Your task to perform on an android device: install app "Walmart Shopping & Grocery" Image 0: 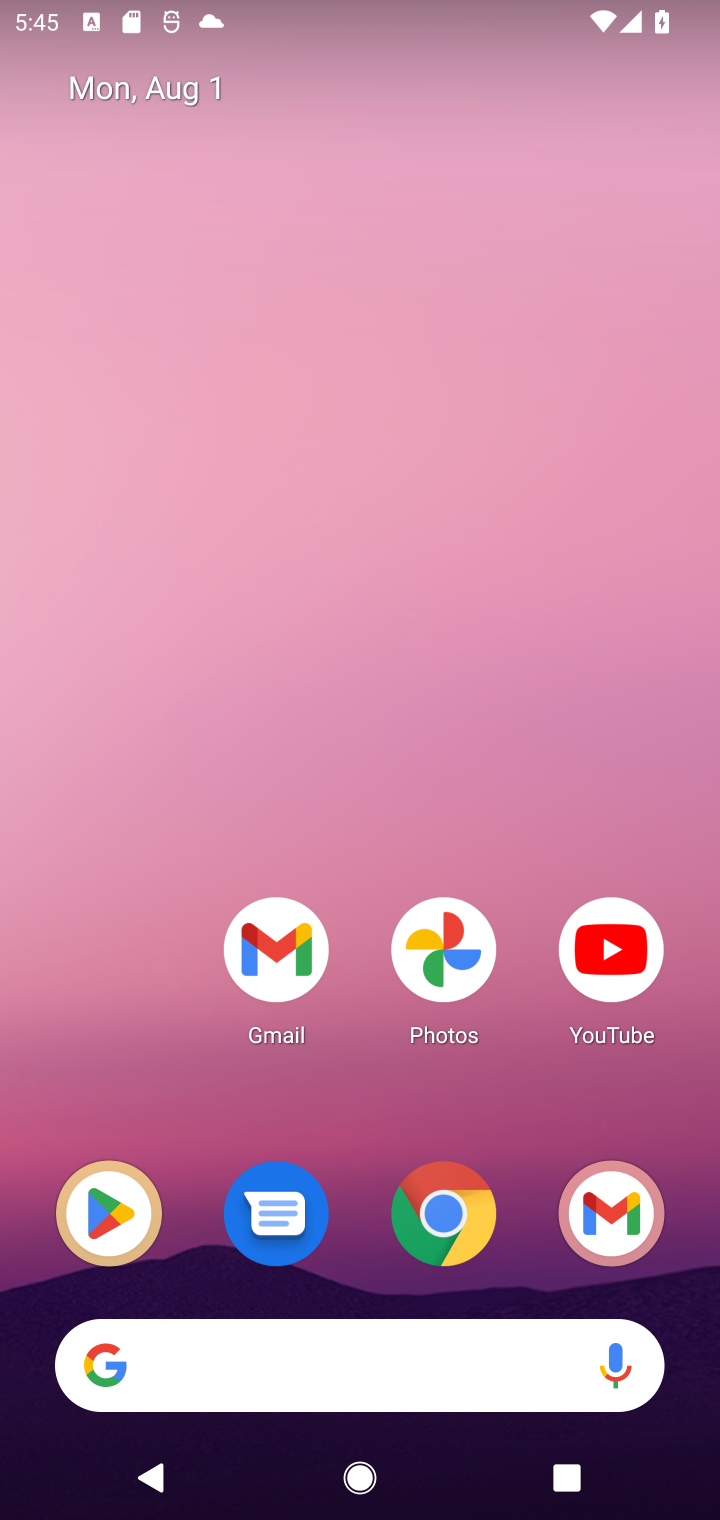
Step 0: drag from (535, 1100) to (543, 248)
Your task to perform on an android device: install app "Walmart Shopping & Grocery" Image 1: 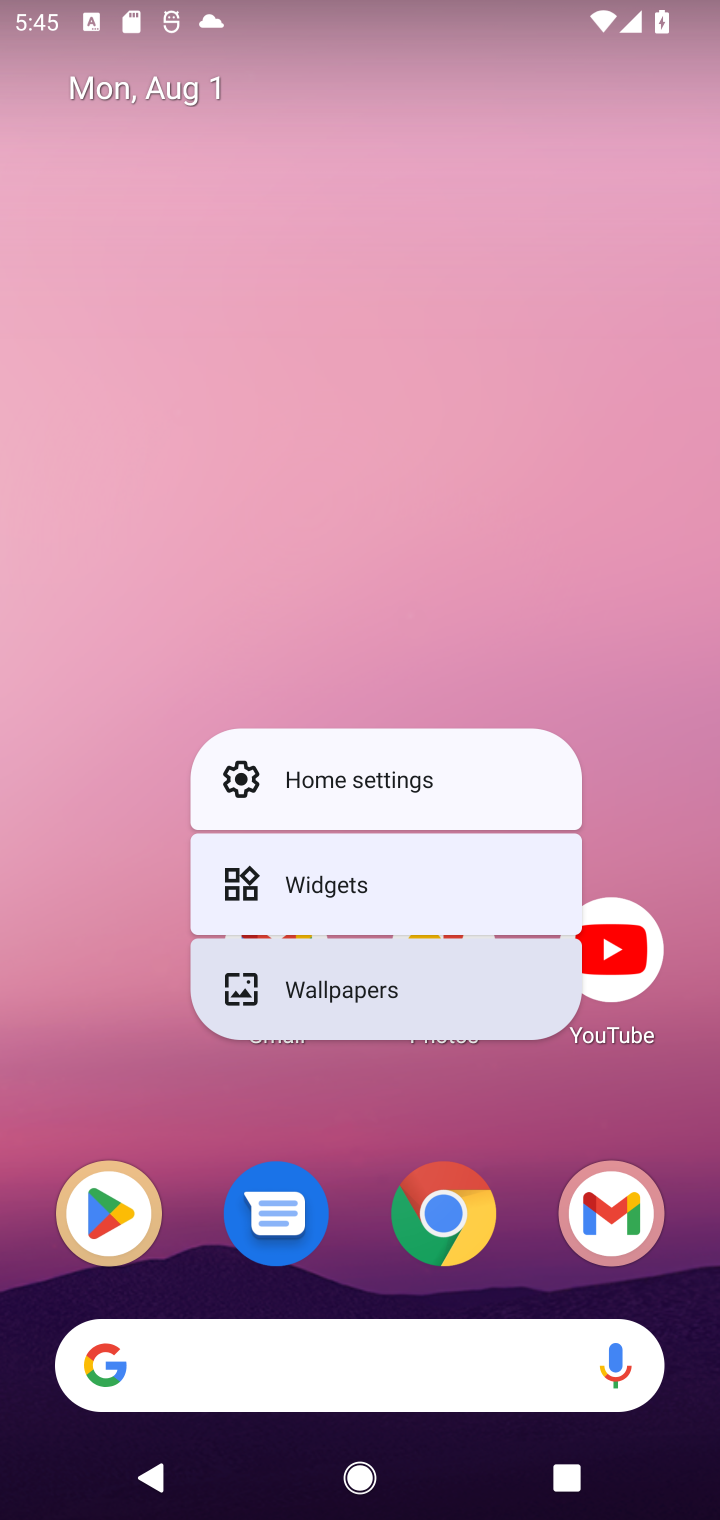
Step 1: click (593, 457)
Your task to perform on an android device: install app "Walmart Shopping & Grocery" Image 2: 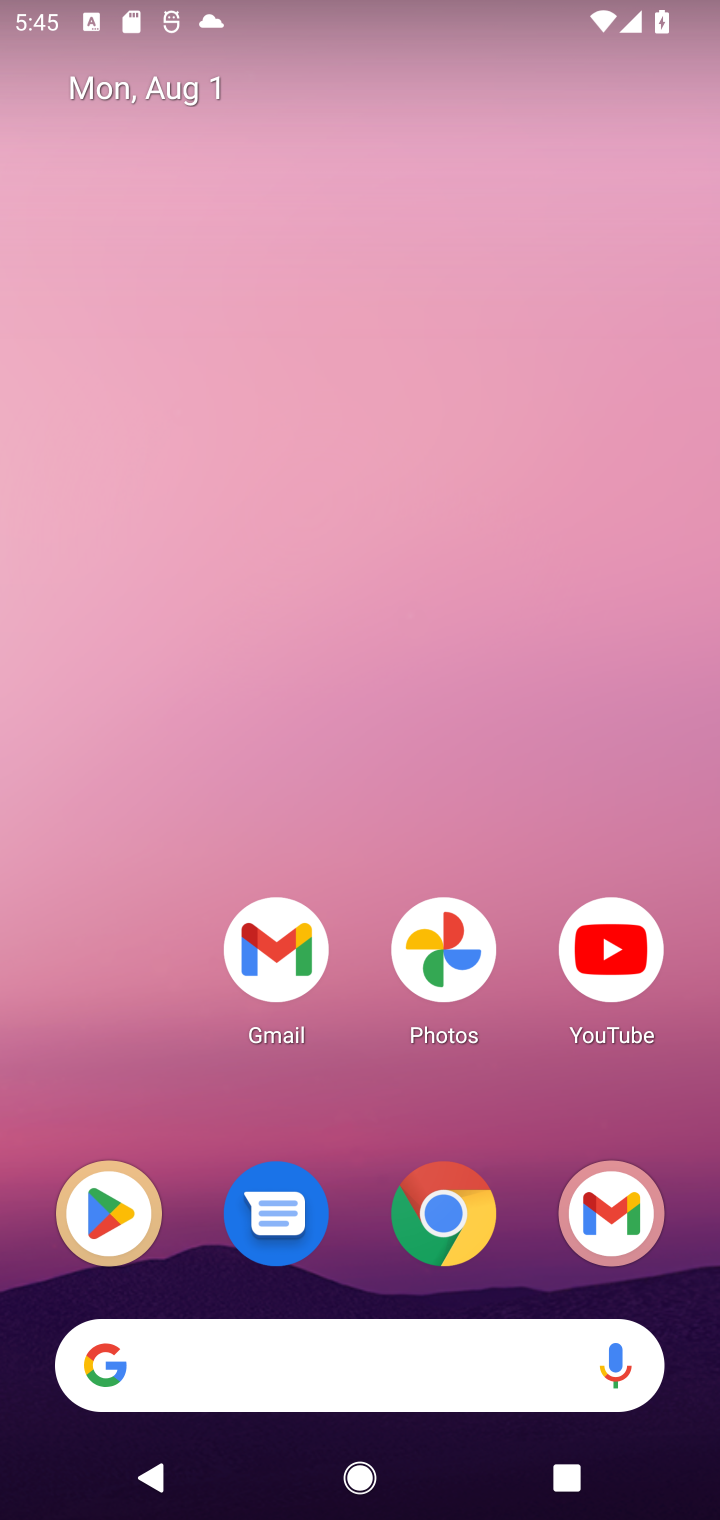
Step 2: drag from (524, 1100) to (522, 65)
Your task to perform on an android device: install app "Walmart Shopping & Grocery" Image 3: 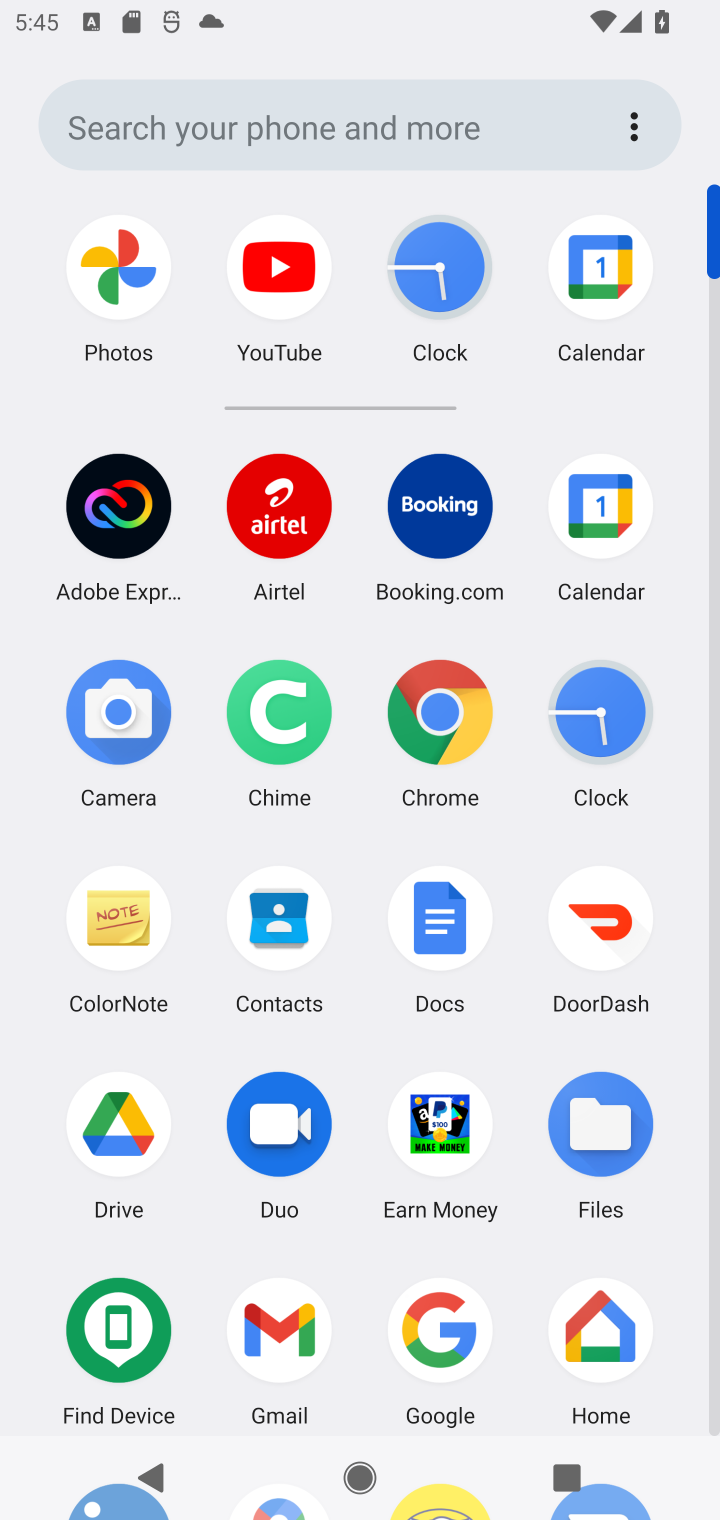
Step 3: drag from (504, 1258) to (524, 384)
Your task to perform on an android device: install app "Walmart Shopping & Grocery" Image 4: 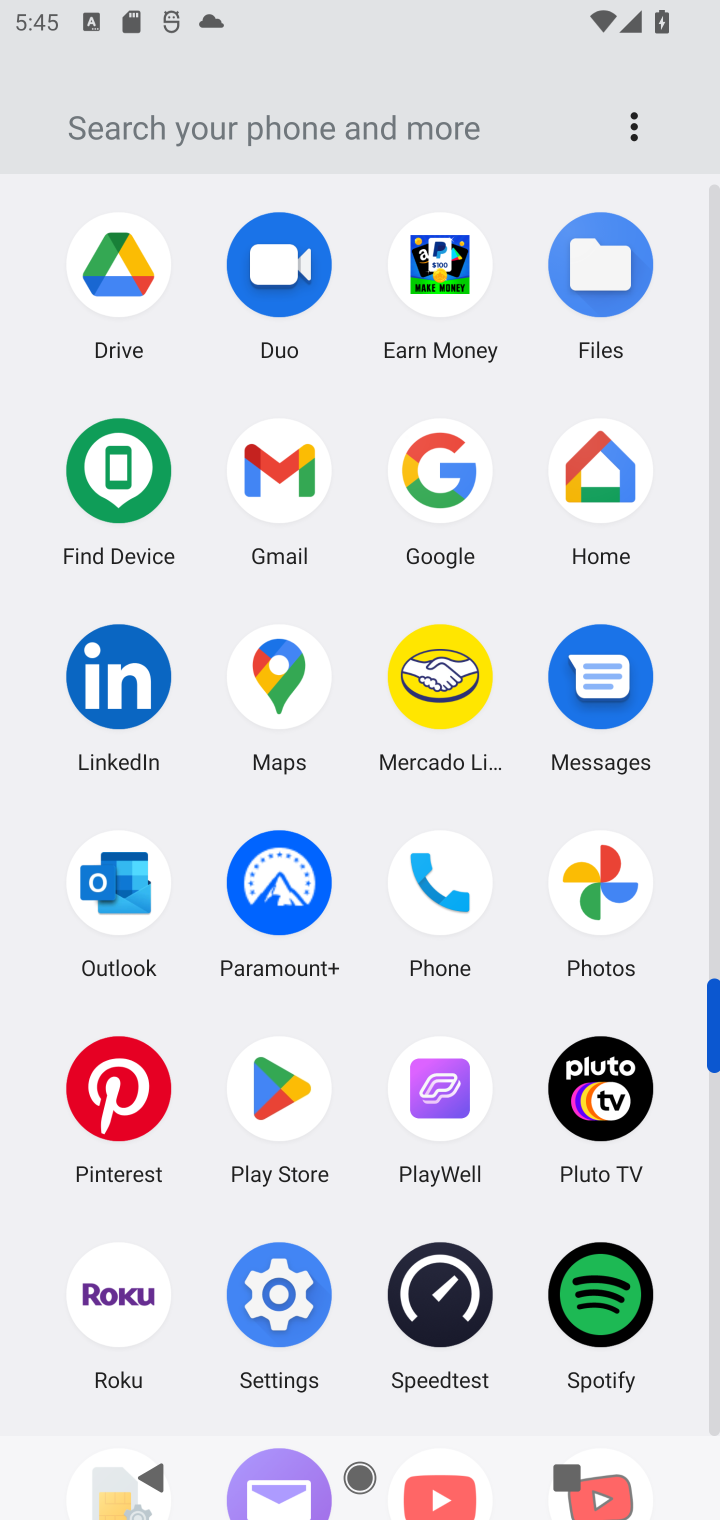
Step 4: click (271, 1097)
Your task to perform on an android device: install app "Walmart Shopping & Grocery" Image 5: 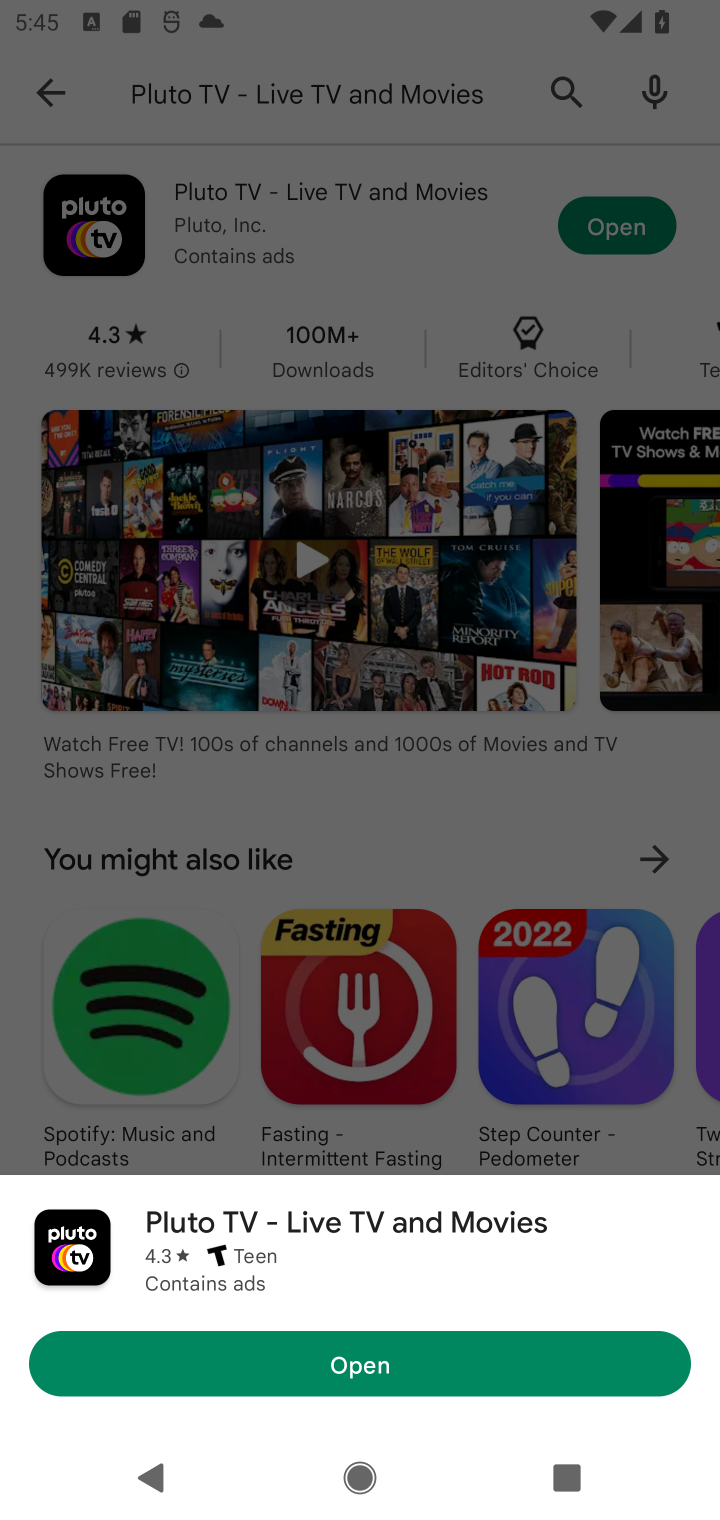
Step 5: click (388, 65)
Your task to perform on an android device: install app "Walmart Shopping & Grocery" Image 6: 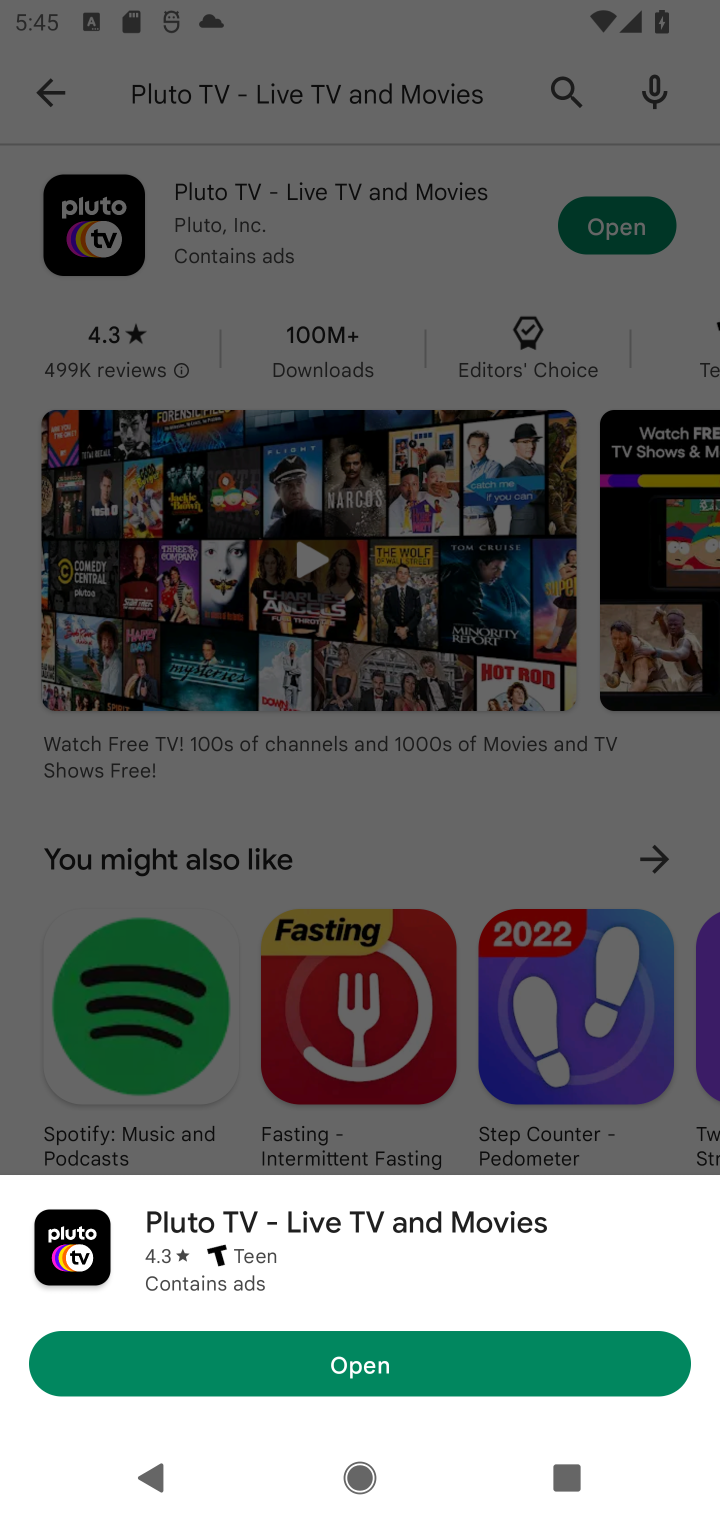
Step 6: click (392, 84)
Your task to perform on an android device: install app "Walmart Shopping & Grocery" Image 7: 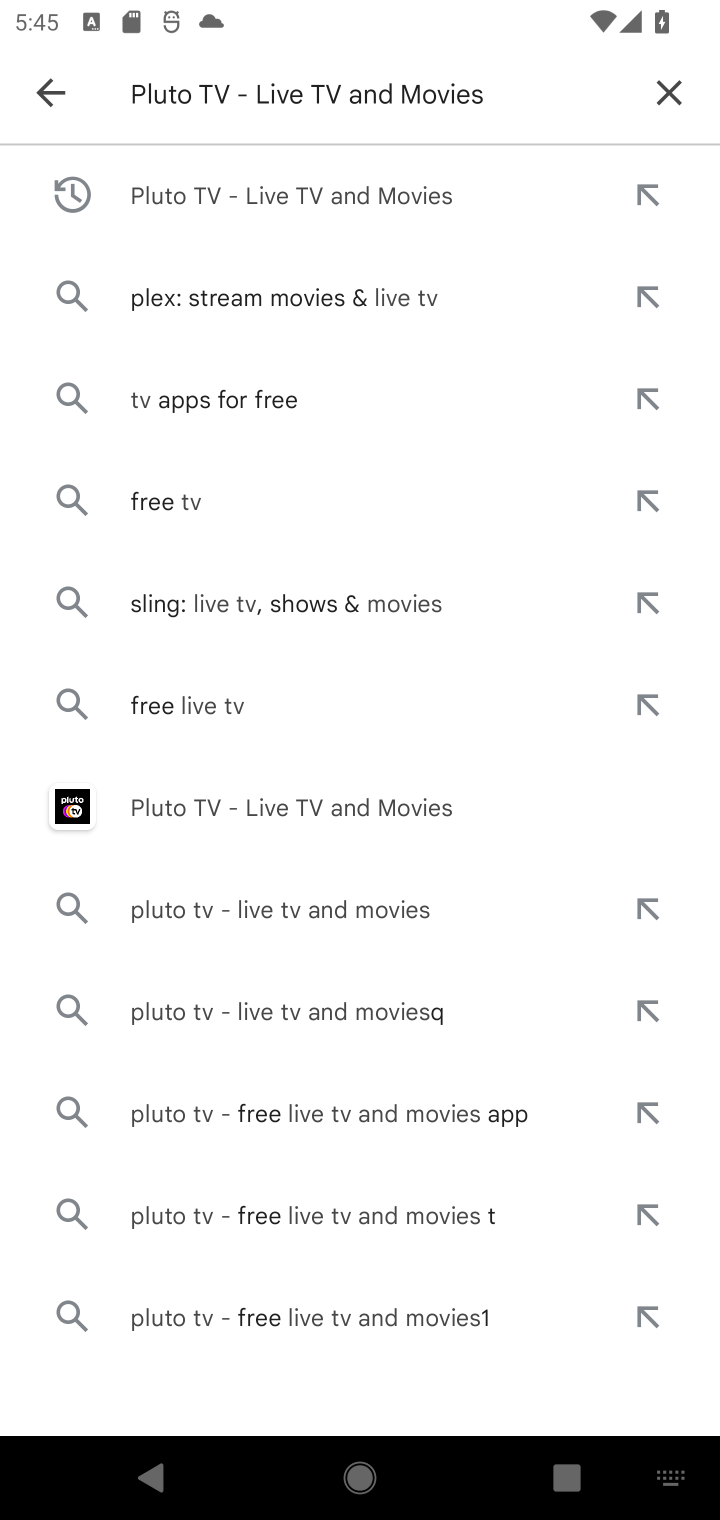
Step 7: click (685, 82)
Your task to perform on an android device: install app "Walmart Shopping & Grocery" Image 8: 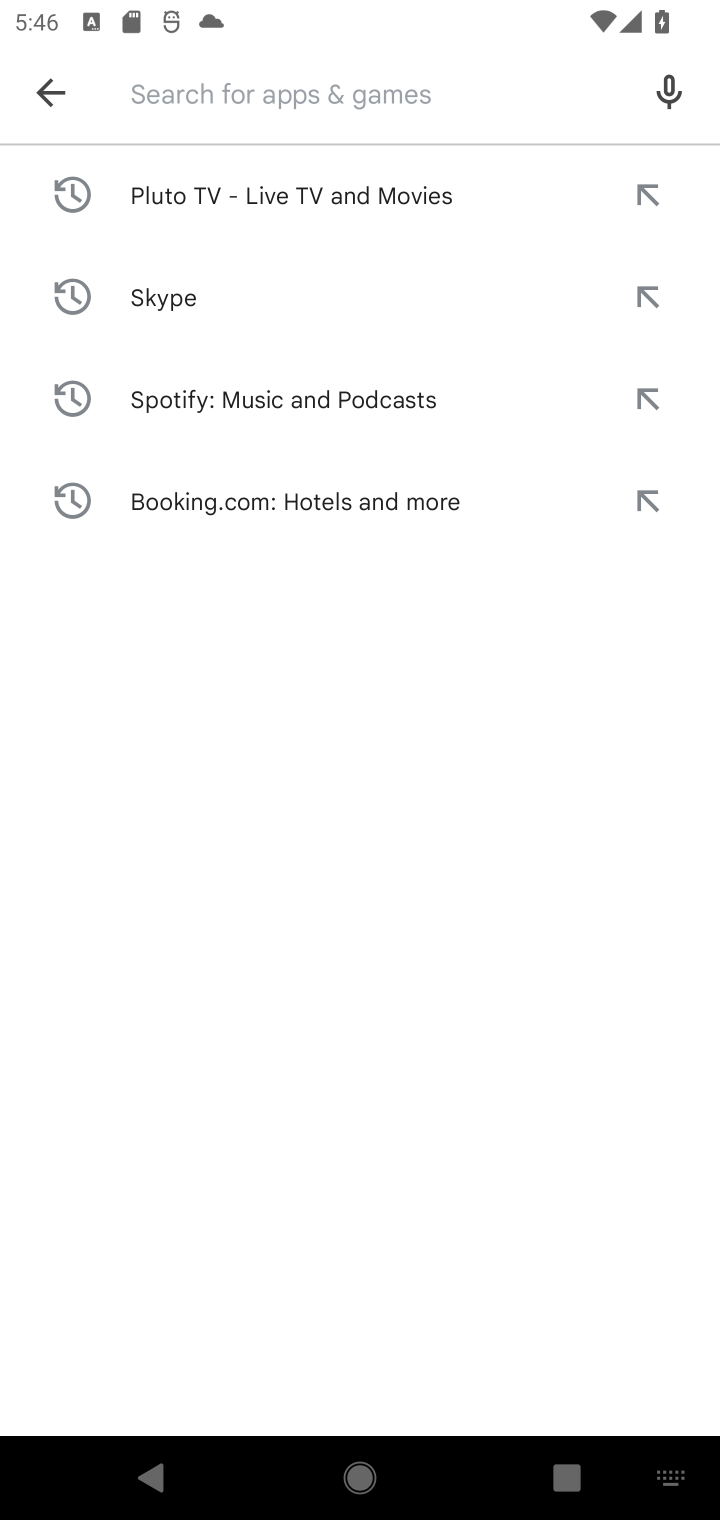
Step 8: type "Walmart Shopping & Grocery"
Your task to perform on an android device: install app "Walmart Shopping & Grocery" Image 9: 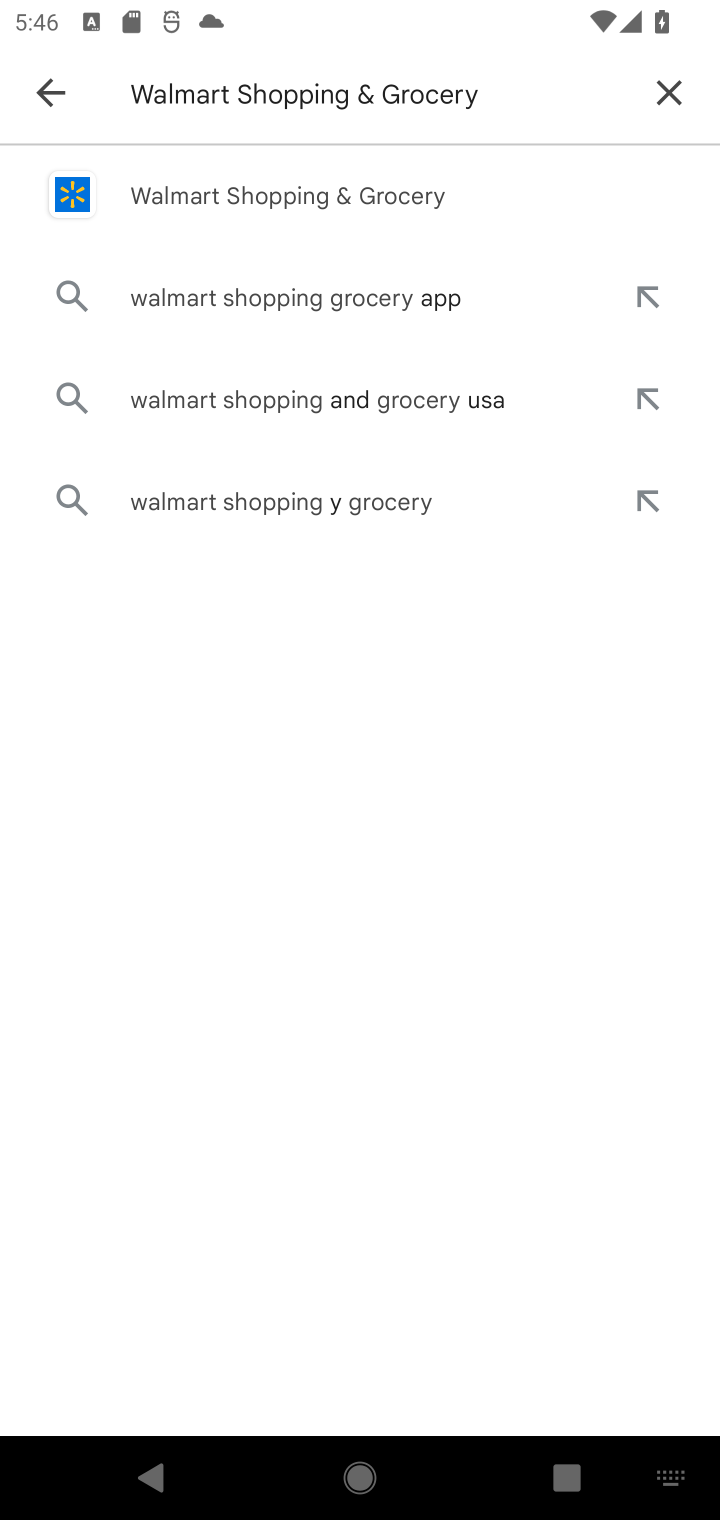
Step 9: press enter
Your task to perform on an android device: install app "Walmart Shopping & Grocery" Image 10: 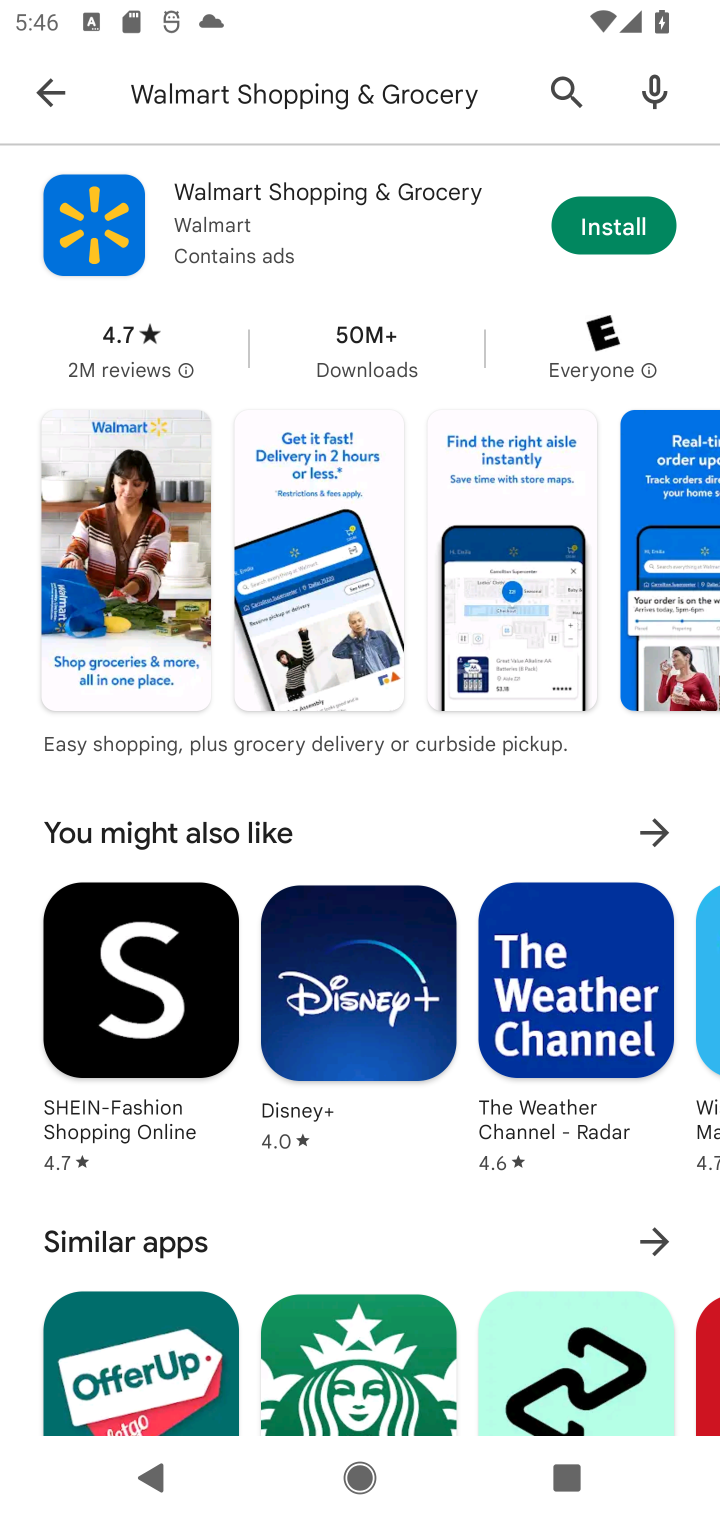
Step 10: click (593, 229)
Your task to perform on an android device: install app "Walmart Shopping & Grocery" Image 11: 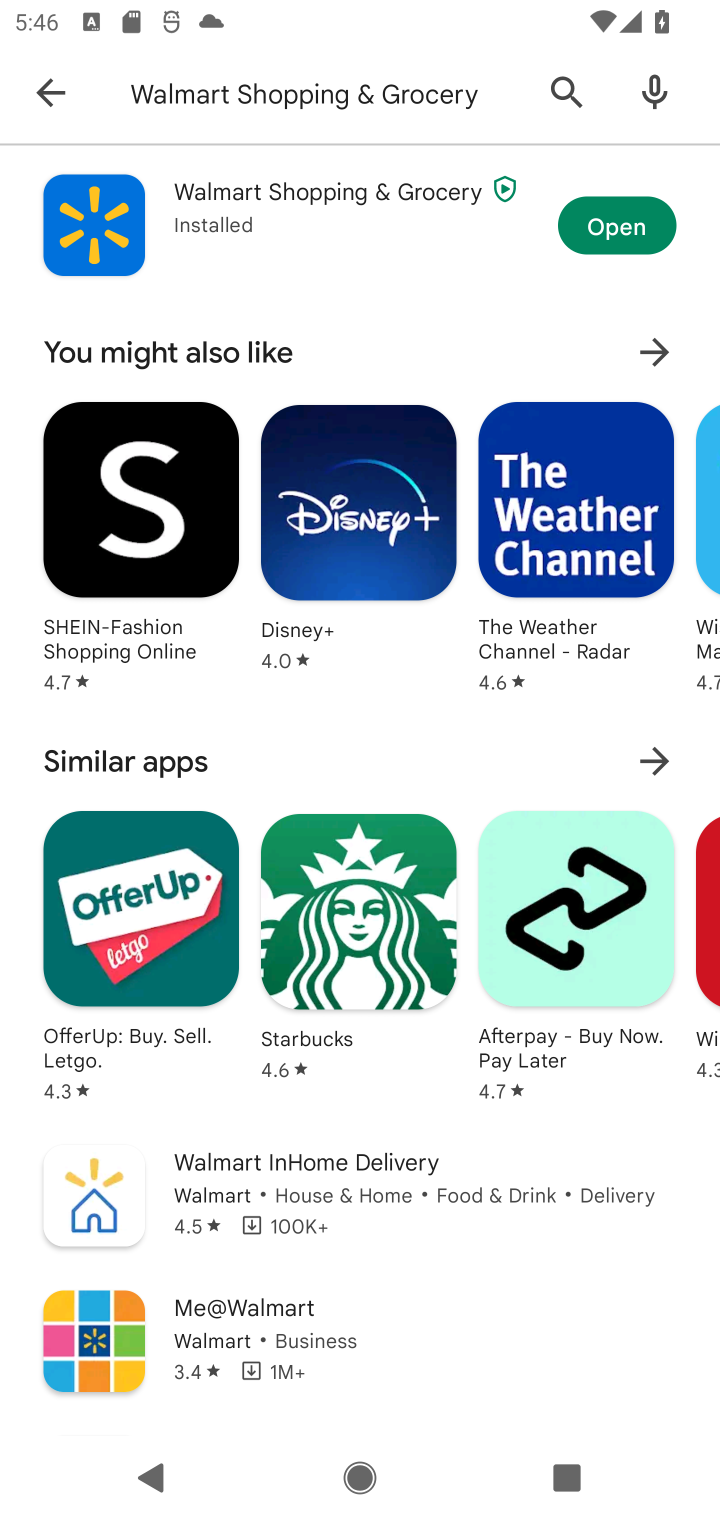
Step 11: task complete